Your task to perform on an android device: What's the weather going to be this weekend? Image 0: 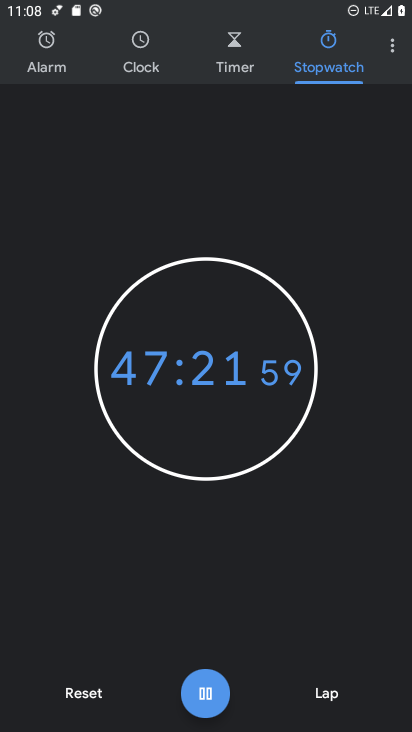
Step 0: press home button
Your task to perform on an android device: What's the weather going to be this weekend? Image 1: 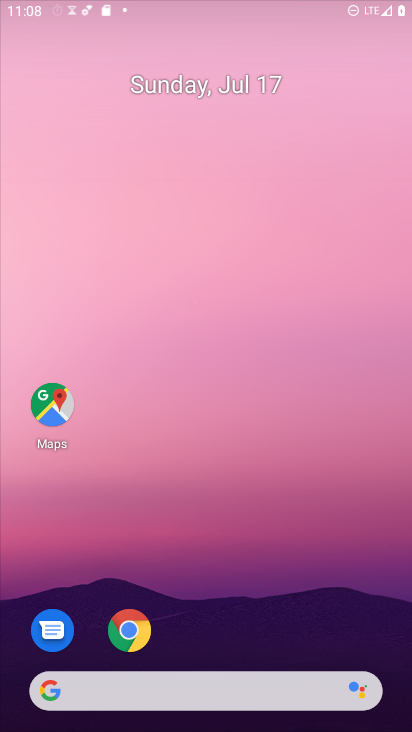
Step 1: drag from (308, 684) to (200, 59)
Your task to perform on an android device: What's the weather going to be this weekend? Image 2: 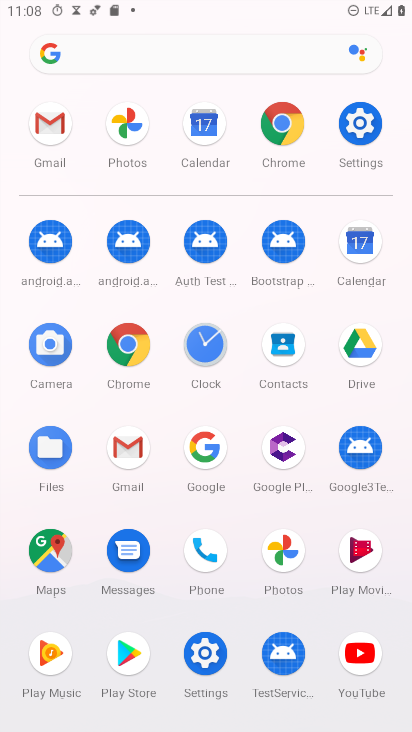
Step 2: click (121, 343)
Your task to perform on an android device: What's the weather going to be this weekend? Image 3: 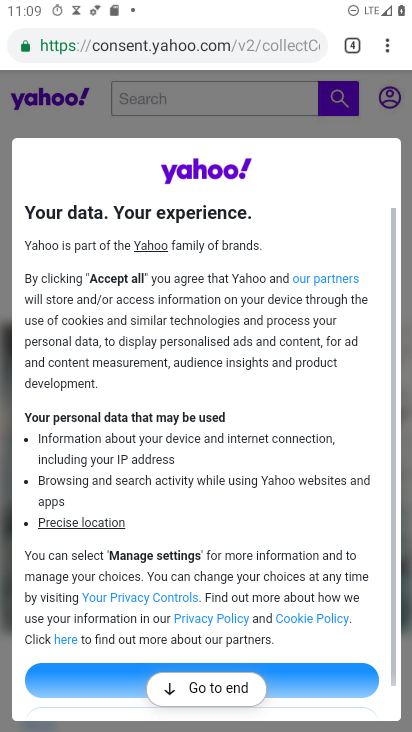
Step 3: click (176, 56)
Your task to perform on an android device: What's the weather going to be this weekend? Image 4: 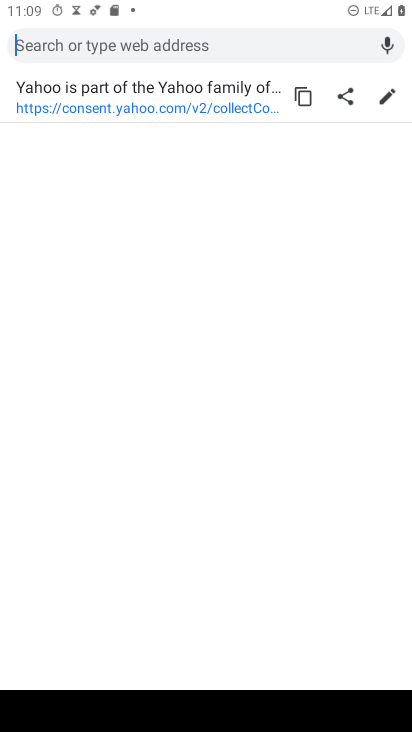
Step 4: type "what is the weather going to be this weekend"
Your task to perform on an android device: What's the weather going to be this weekend? Image 5: 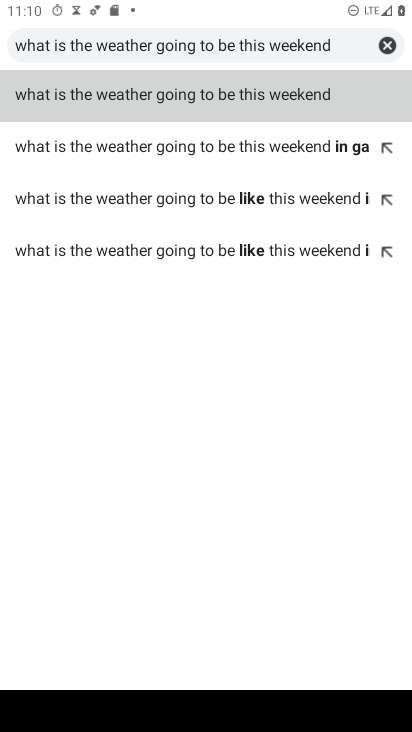
Step 5: click (281, 86)
Your task to perform on an android device: What's the weather going to be this weekend? Image 6: 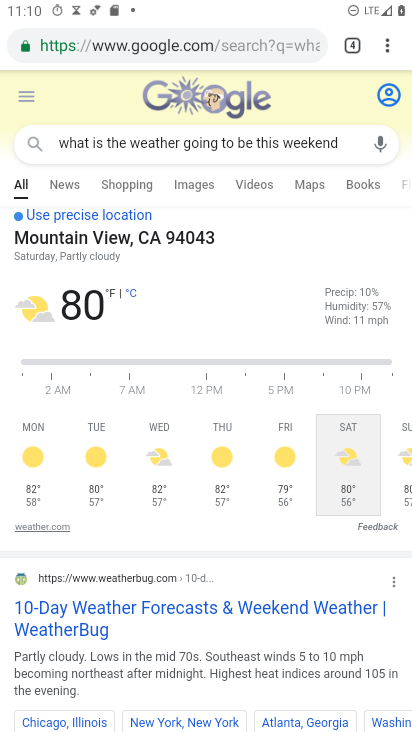
Step 6: task complete